Your task to perform on an android device: Go to eBay Image 0: 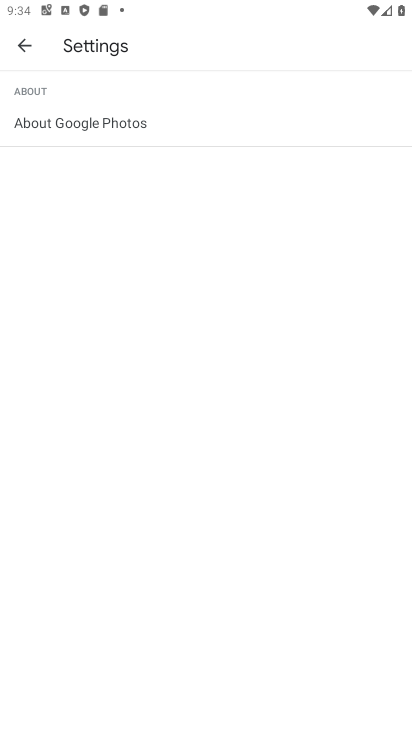
Step 0: press home button
Your task to perform on an android device: Go to eBay Image 1: 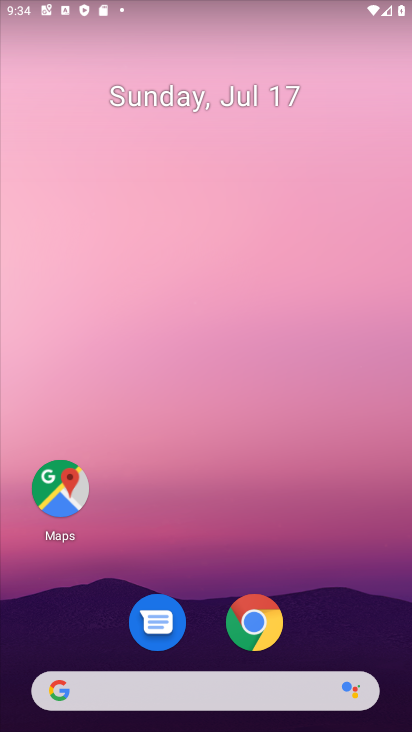
Step 1: drag from (214, 730) to (228, 26)
Your task to perform on an android device: Go to eBay Image 2: 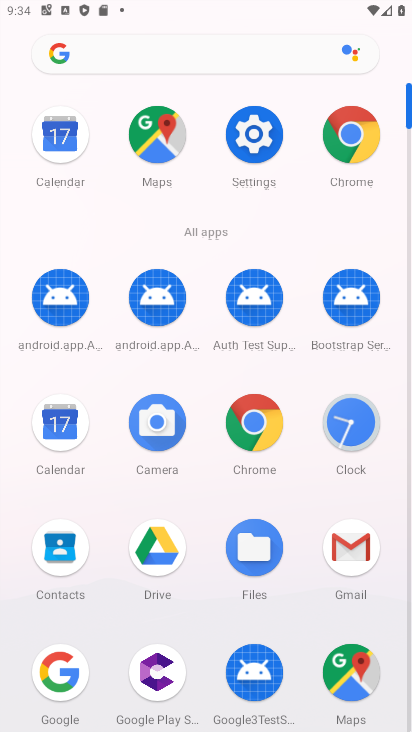
Step 2: click (208, 58)
Your task to perform on an android device: Go to eBay Image 3: 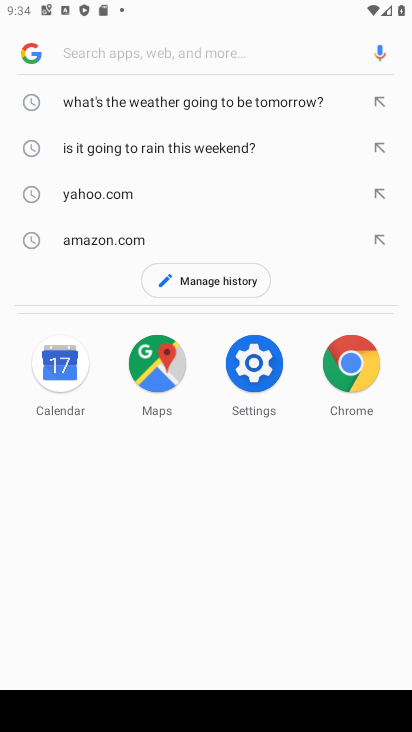
Step 3: type "ebay"
Your task to perform on an android device: Go to eBay Image 4: 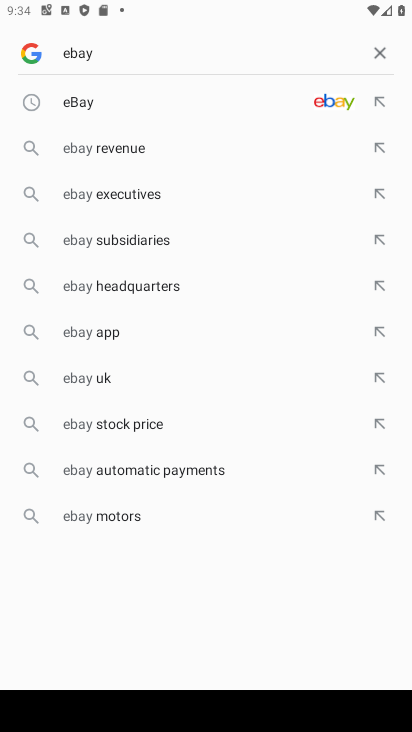
Step 4: click (331, 102)
Your task to perform on an android device: Go to eBay Image 5: 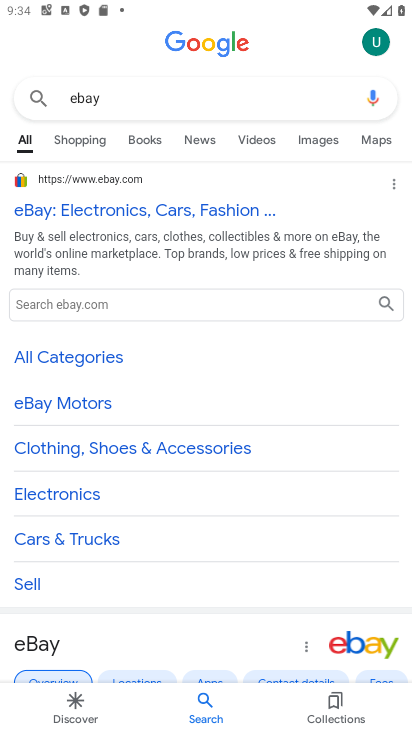
Step 5: click (110, 211)
Your task to perform on an android device: Go to eBay Image 6: 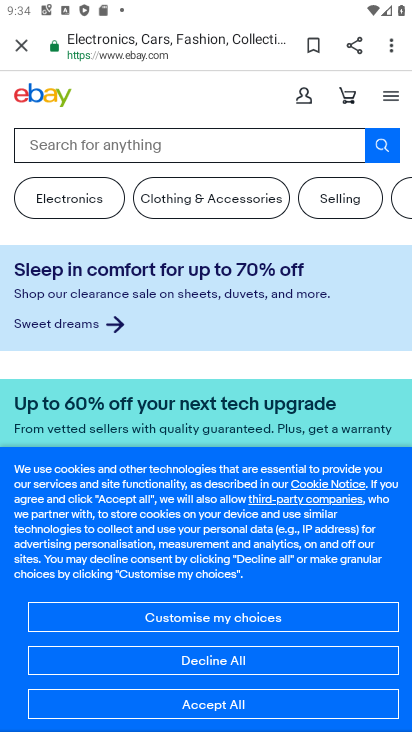
Step 6: task complete